Your task to perform on an android device: Search for Italian restaurants on Maps Image 0: 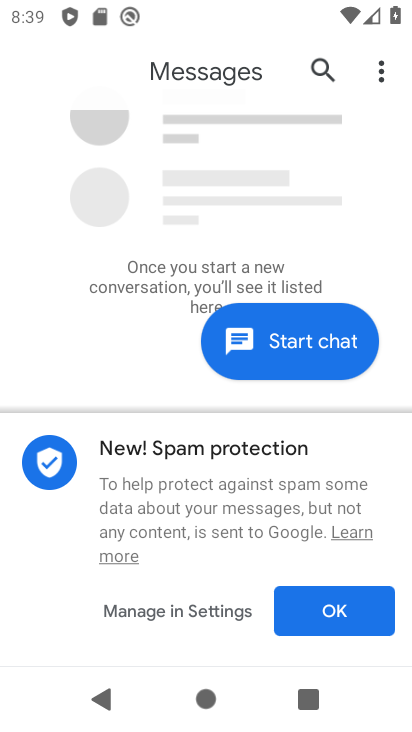
Step 0: press home button
Your task to perform on an android device: Search for Italian restaurants on Maps Image 1: 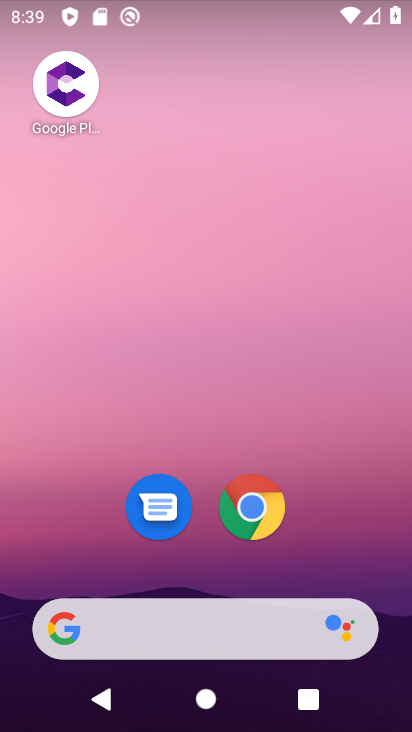
Step 1: drag from (392, 608) to (332, 110)
Your task to perform on an android device: Search for Italian restaurants on Maps Image 2: 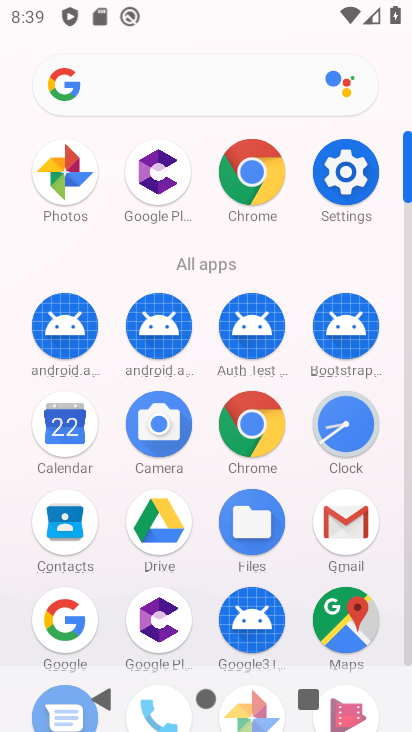
Step 2: click (409, 648)
Your task to perform on an android device: Search for Italian restaurants on Maps Image 3: 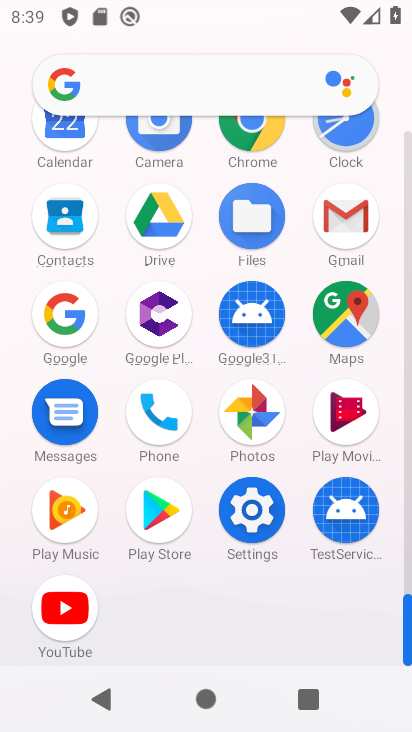
Step 3: click (344, 315)
Your task to perform on an android device: Search for Italian restaurants on Maps Image 4: 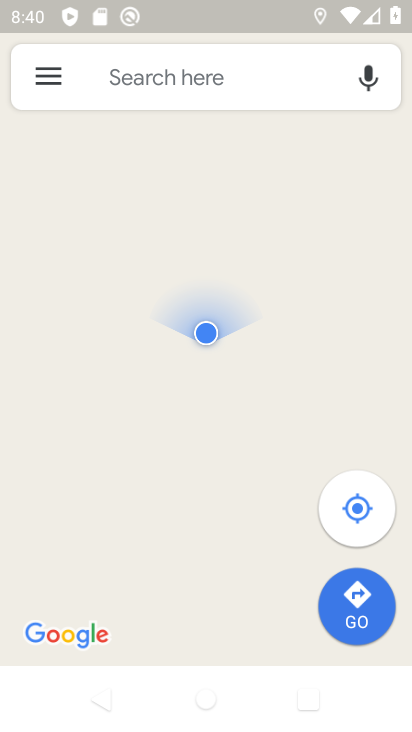
Step 4: click (179, 67)
Your task to perform on an android device: Search for Italian restaurants on Maps Image 5: 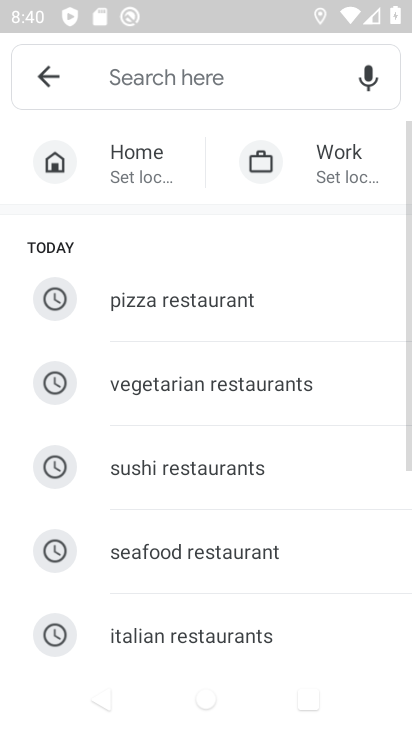
Step 5: click (141, 73)
Your task to perform on an android device: Search for Italian restaurants on Maps Image 6: 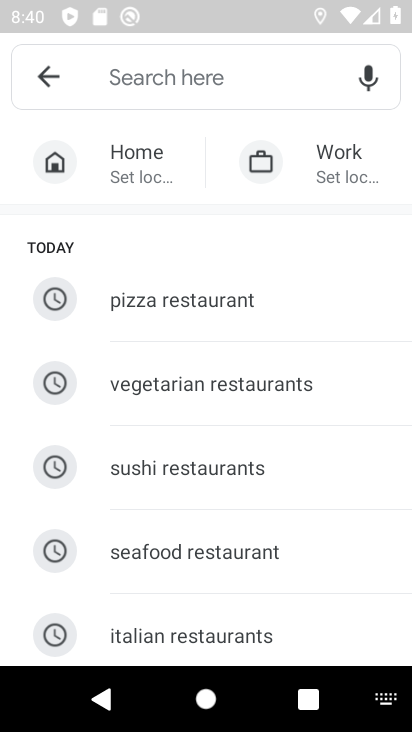
Step 6: type "italian restaurants"
Your task to perform on an android device: Search for Italian restaurants on Maps Image 7: 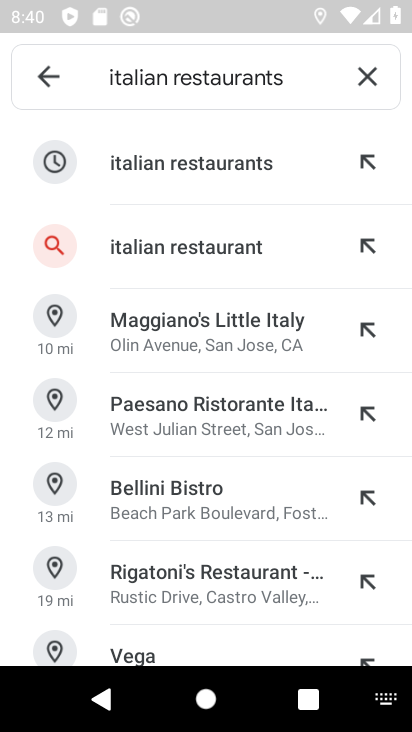
Step 7: click (161, 159)
Your task to perform on an android device: Search for Italian restaurants on Maps Image 8: 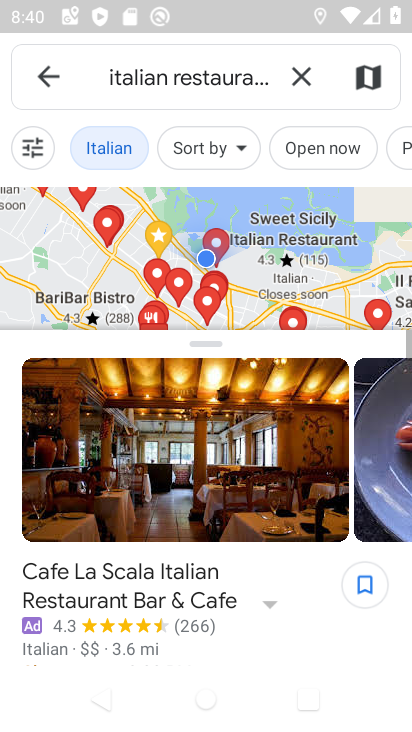
Step 8: task complete